Your task to perform on an android device: Is it going to rain today? Image 0: 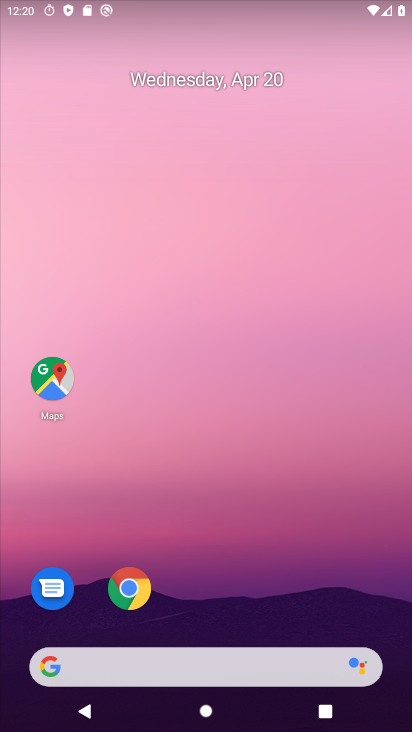
Step 0: drag from (181, 638) to (105, 35)
Your task to perform on an android device: Is it going to rain today? Image 1: 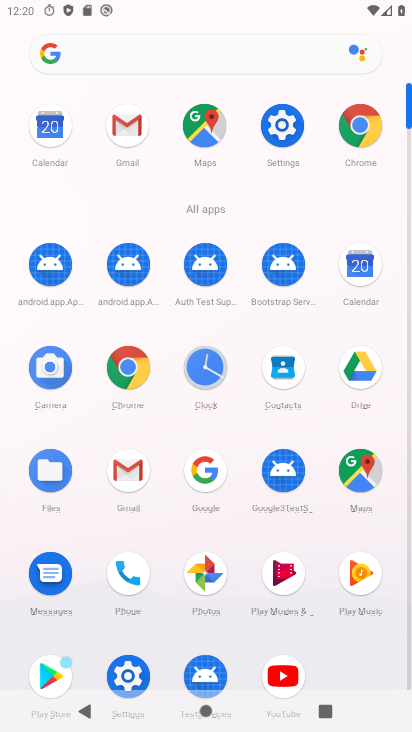
Step 1: click (195, 468)
Your task to perform on an android device: Is it going to rain today? Image 2: 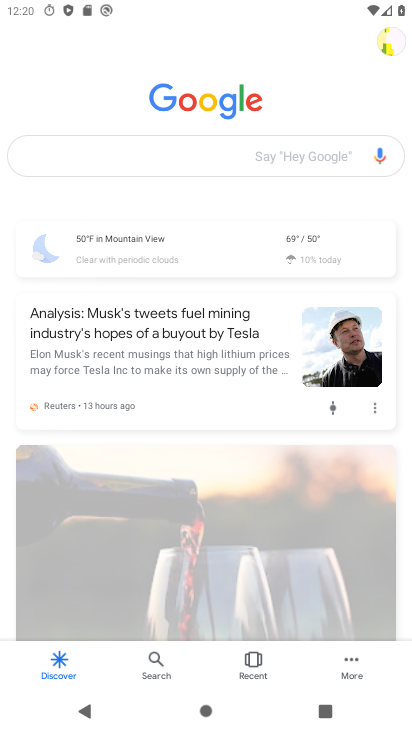
Step 2: click (155, 175)
Your task to perform on an android device: Is it going to rain today? Image 3: 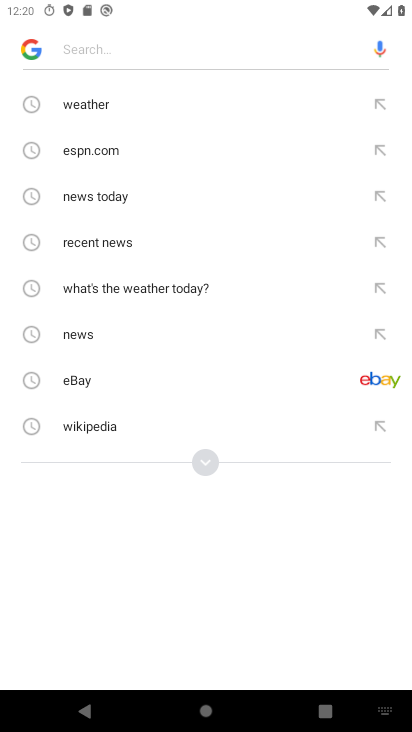
Step 3: click (92, 109)
Your task to perform on an android device: Is it going to rain today? Image 4: 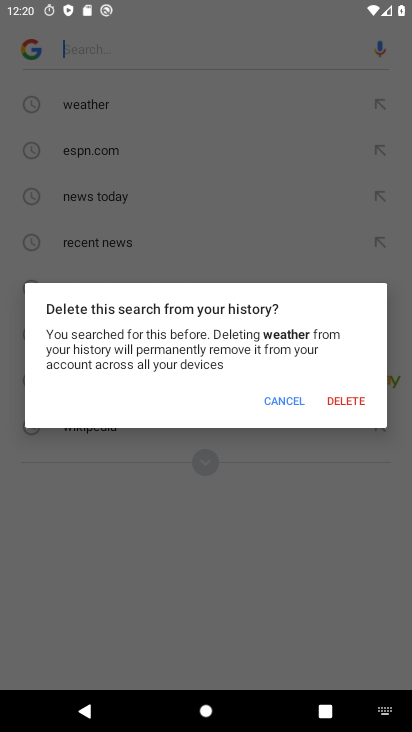
Step 4: click (277, 397)
Your task to perform on an android device: Is it going to rain today? Image 5: 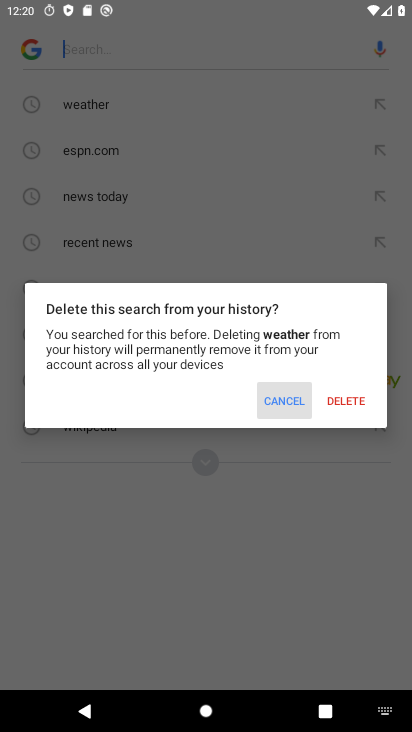
Step 5: click (108, 119)
Your task to perform on an android device: Is it going to rain today? Image 6: 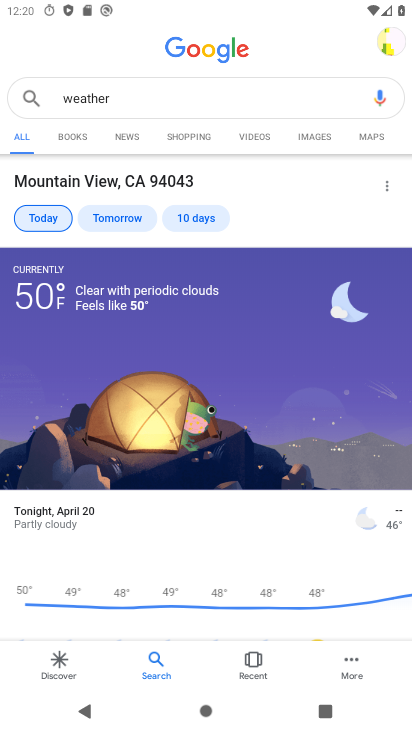
Step 6: task complete